Your task to perform on an android device: Open Yahoo.com Image 0: 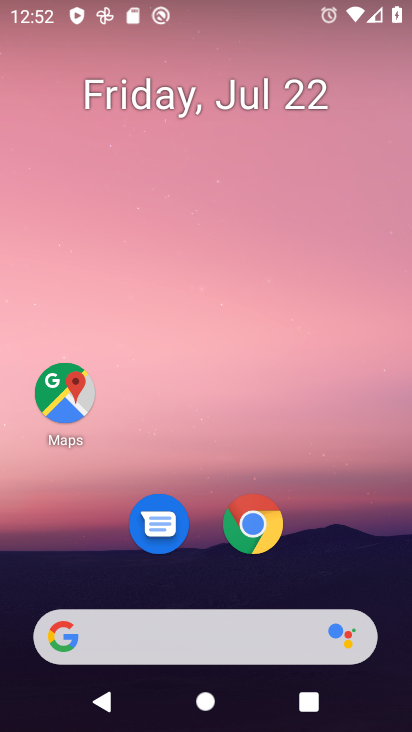
Step 0: click (250, 535)
Your task to perform on an android device: Open Yahoo.com Image 1: 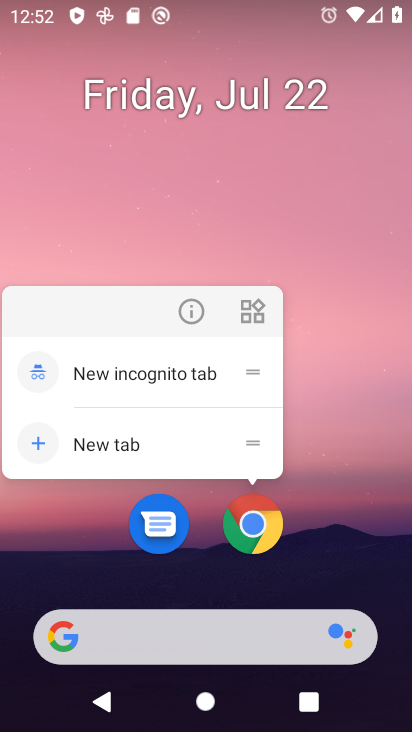
Step 1: click (250, 535)
Your task to perform on an android device: Open Yahoo.com Image 2: 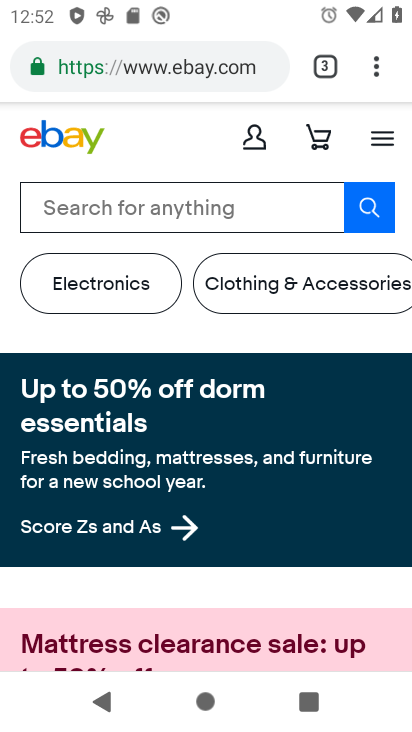
Step 2: drag from (374, 73) to (221, 141)
Your task to perform on an android device: Open Yahoo.com Image 3: 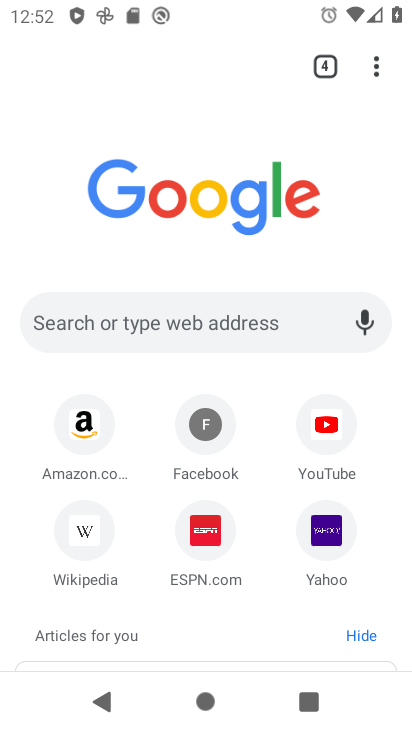
Step 3: click (335, 531)
Your task to perform on an android device: Open Yahoo.com Image 4: 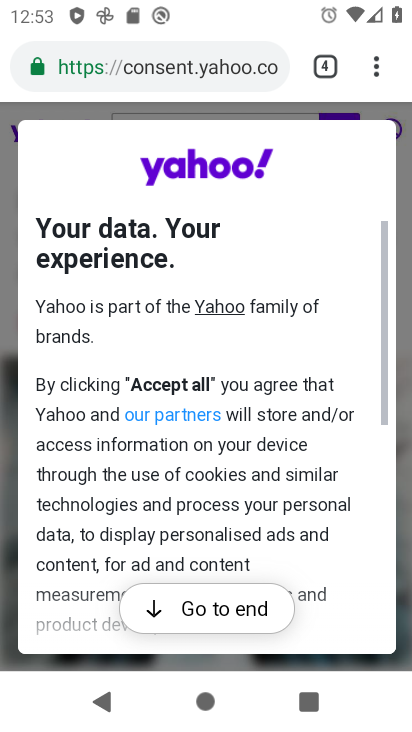
Step 4: click (222, 605)
Your task to perform on an android device: Open Yahoo.com Image 5: 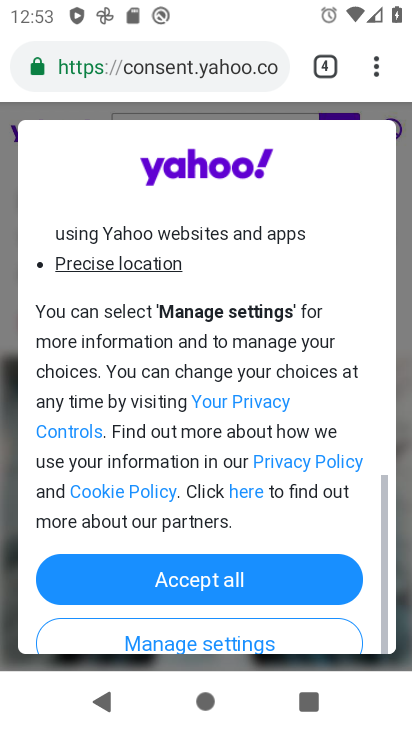
Step 5: click (219, 591)
Your task to perform on an android device: Open Yahoo.com Image 6: 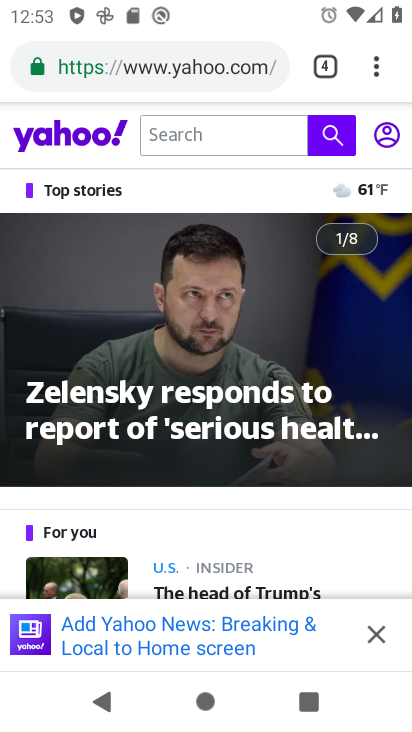
Step 6: task complete